Your task to perform on an android device: Turn off the flashlight Image 0: 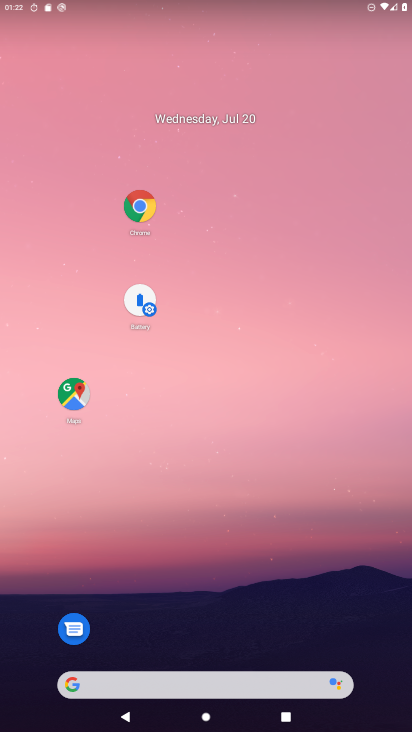
Step 0: drag from (206, 611) to (62, 72)
Your task to perform on an android device: Turn off the flashlight Image 1: 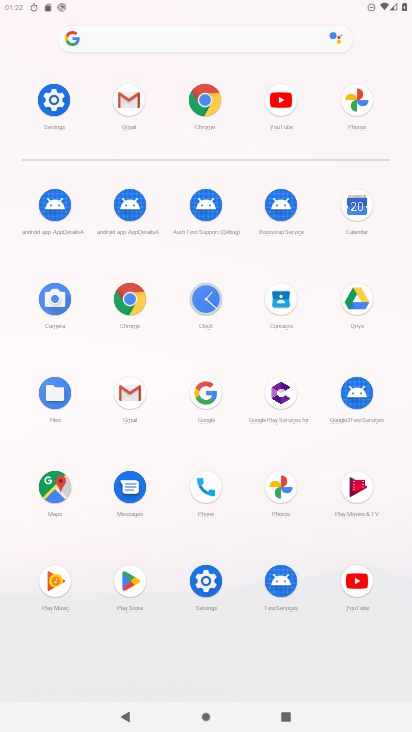
Step 1: click (207, 579)
Your task to perform on an android device: Turn off the flashlight Image 2: 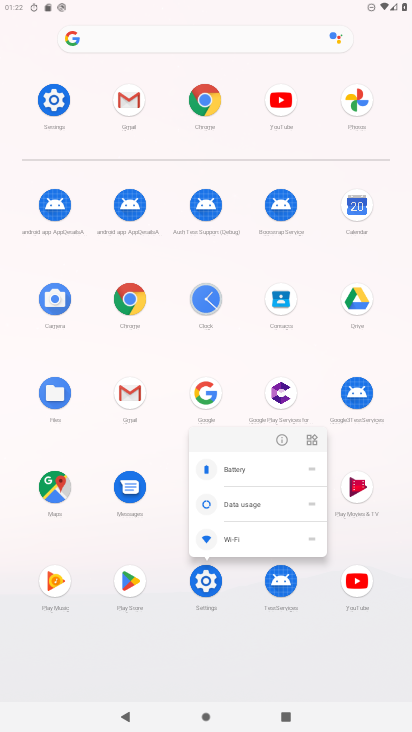
Step 2: click (283, 439)
Your task to perform on an android device: Turn off the flashlight Image 3: 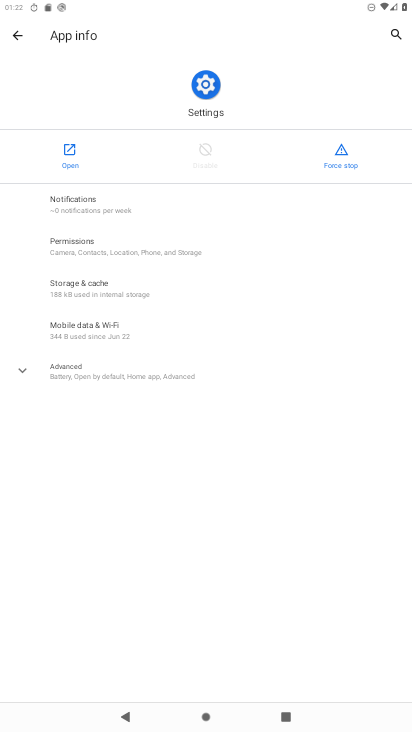
Step 3: click (68, 155)
Your task to perform on an android device: Turn off the flashlight Image 4: 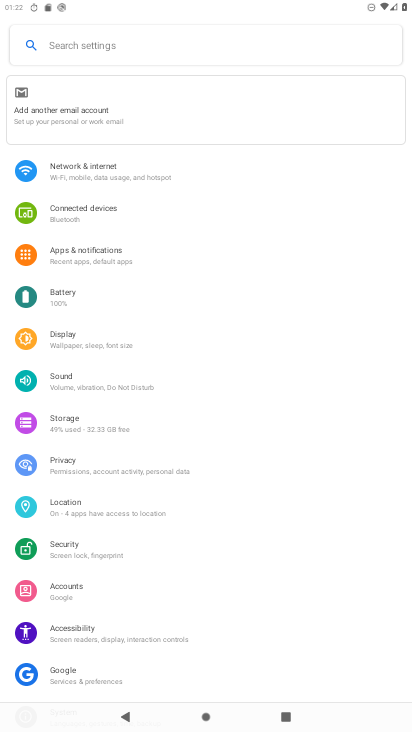
Step 4: click (139, 43)
Your task to perform on an android device: Turn off the flashlight Image 5: 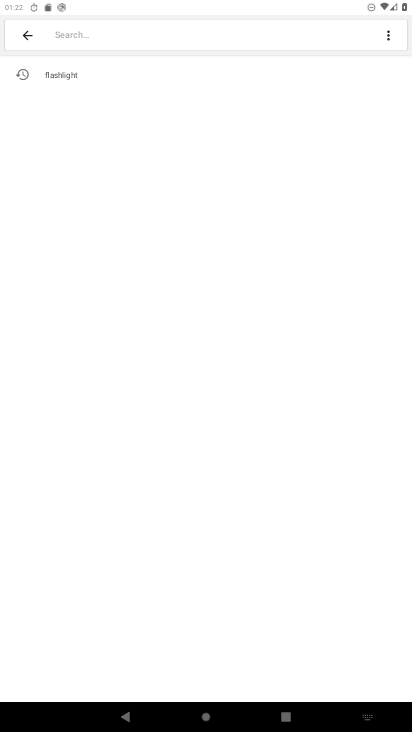
Step 5: click (106, 79)
Your task to perform on an android device: Turn off the flashlight Image 6: 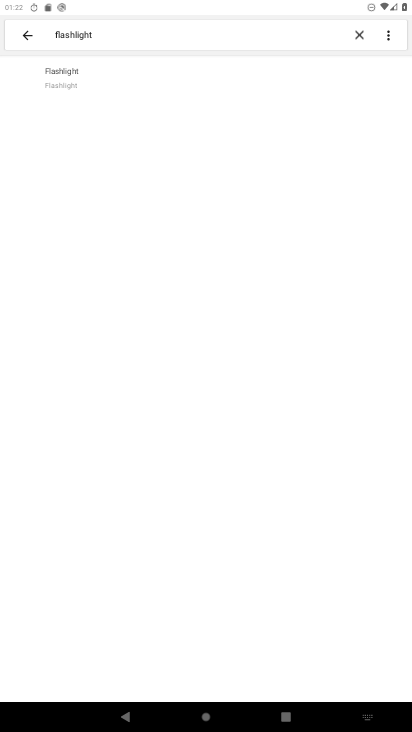
Step 6: click (106, 79)
Your task to perform on an android device: Turn off the flashlight Image 7: 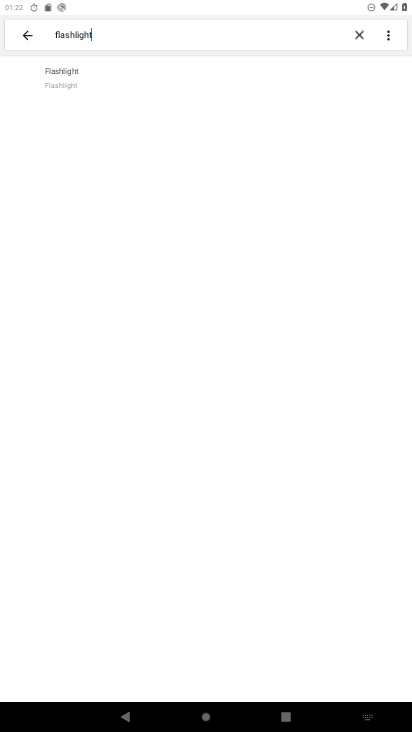
Step 7: drag from (243, 354) to (244, 270)
Your task to perform on an android device: Turn off the flashlight Image 8: 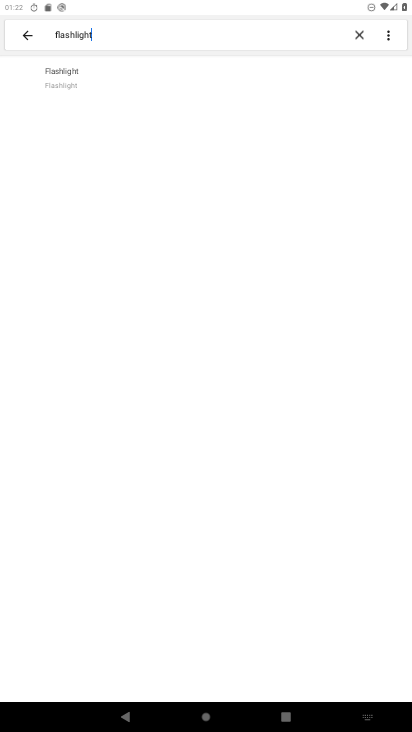
Step 8: drag from (160, 330) to (182, 219)
Your task to perform on an android device: Turn off the flashlight Image 9: 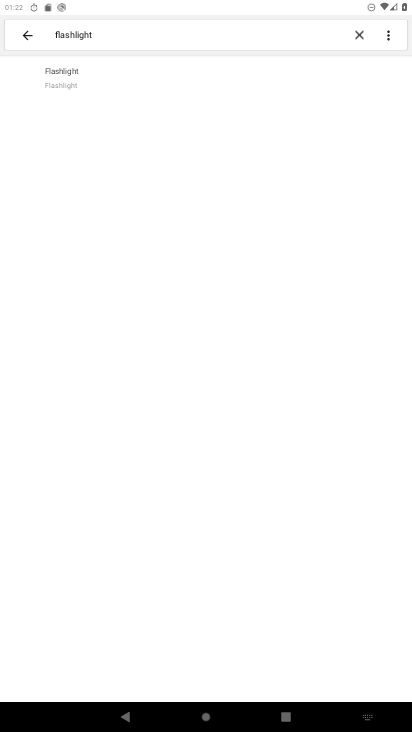
Step 9: click (99, 79)
Your task to perform on an android device: Turn off the flashlight Image 10: 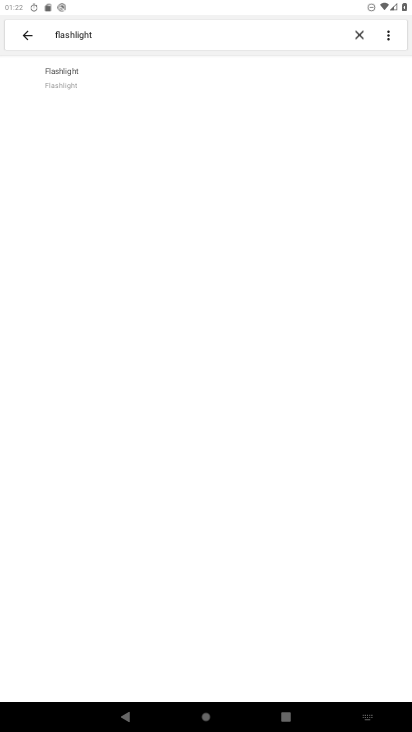
Step 10: task complete